Your task to perform on an android device: What's the weather? Image 0: 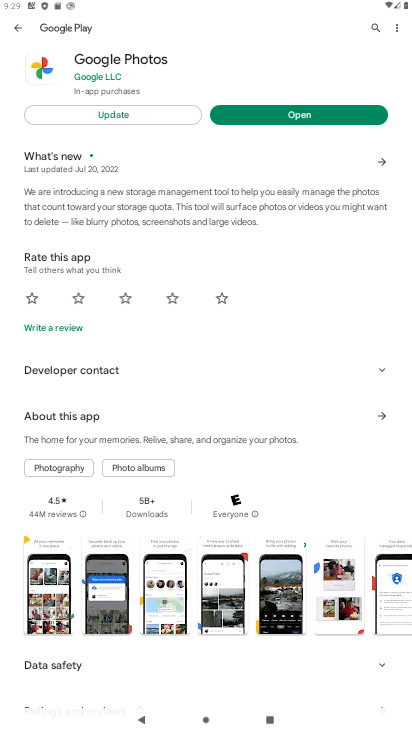
Step 0: press home button
Your task to perform on an android device: What's the weather? Image 1: 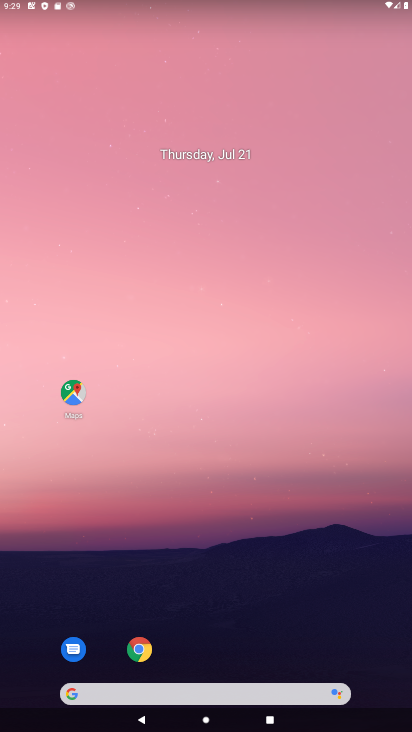
Step 1: click (176, 692)
Your task to perform on an android device: What's the weather? Image 2: 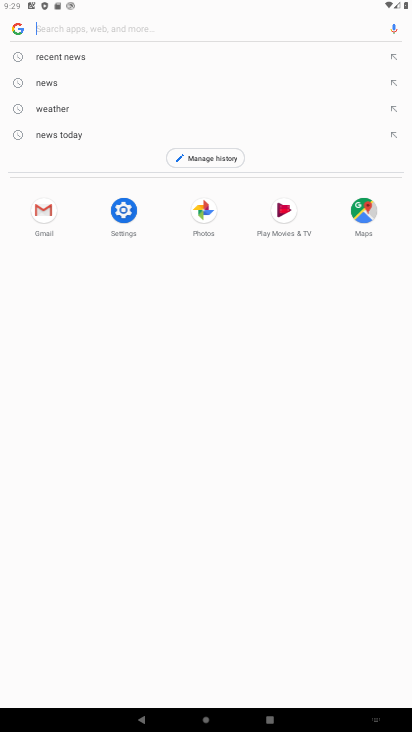
Step 2: click (64, 109)
Your task to perform on an android device: What's the weather? Image 3: 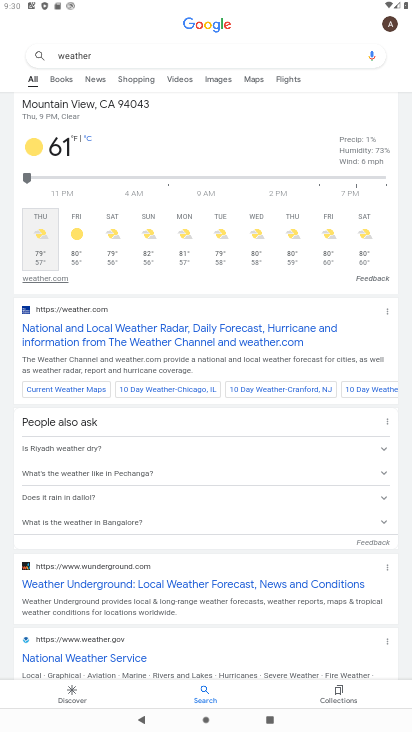
Step 3: task complete